Your task to perform on an android device: open wifi settings Image 0: 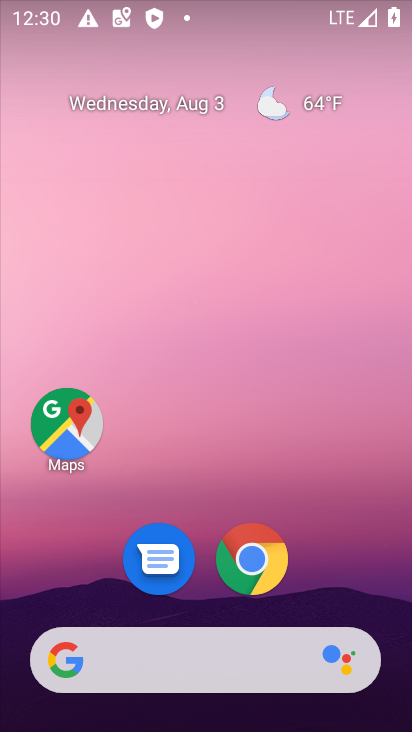
Step 0: drag from (205, 600) to (200, 22)
Your task to perform on an android device: open wifi settings Image 1: 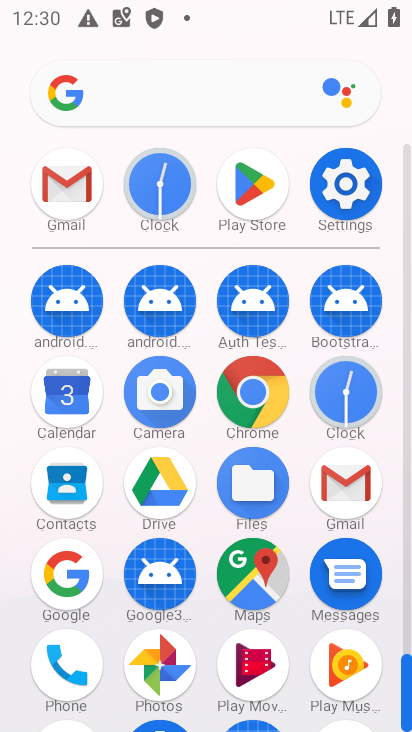
Step 1: click (340, 183)
Your task to perform on an android device: open wifi settings Image 2: 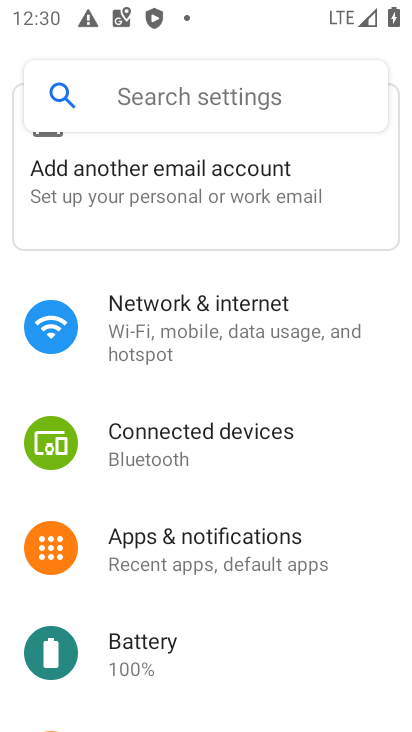
Step 2: click (187, 304)
Your task to perform on an android device: open wifi settings Image 3: 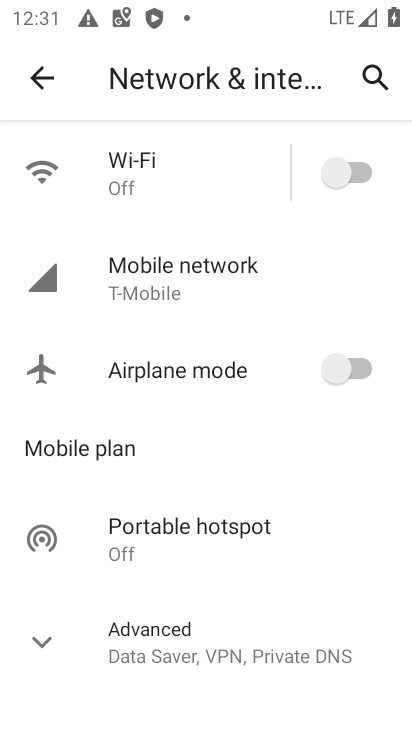
Step 3: click (134, 160)
Your task to perform on an android device: open wifi settings Image 4: 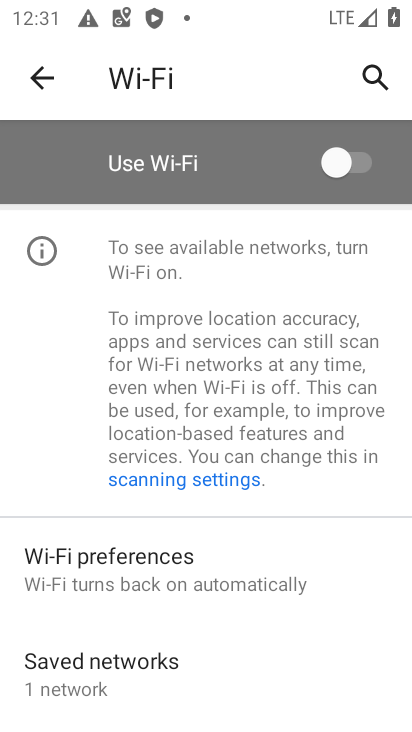
Step 4: task complete